Your task to perform on an android device: turn off picture-in-picture Image 0: 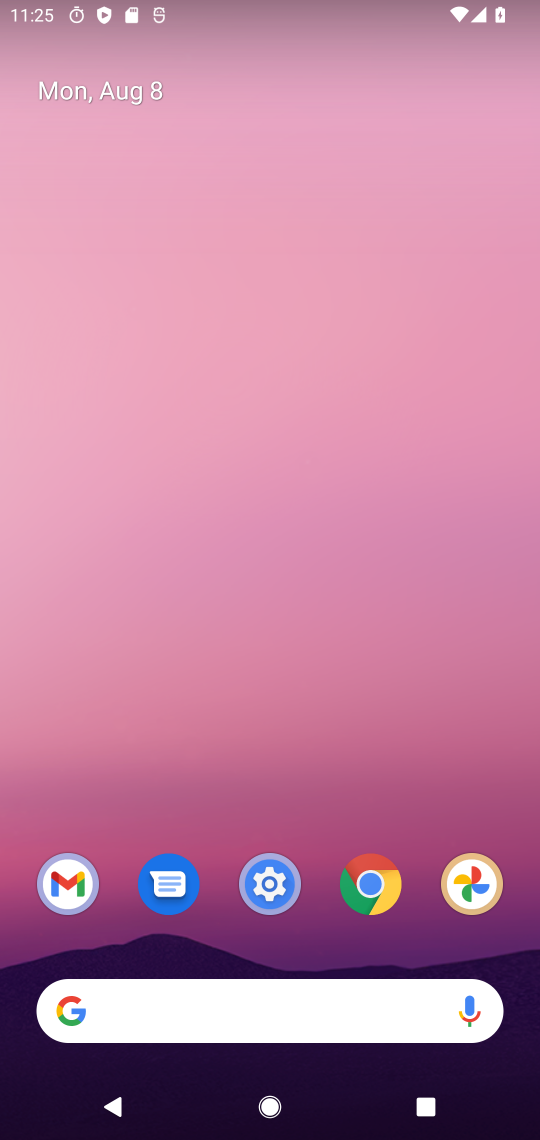
Step 0: click (267, 885)
Your task to perform on an android device: turn off picture-in-picture Image 1: 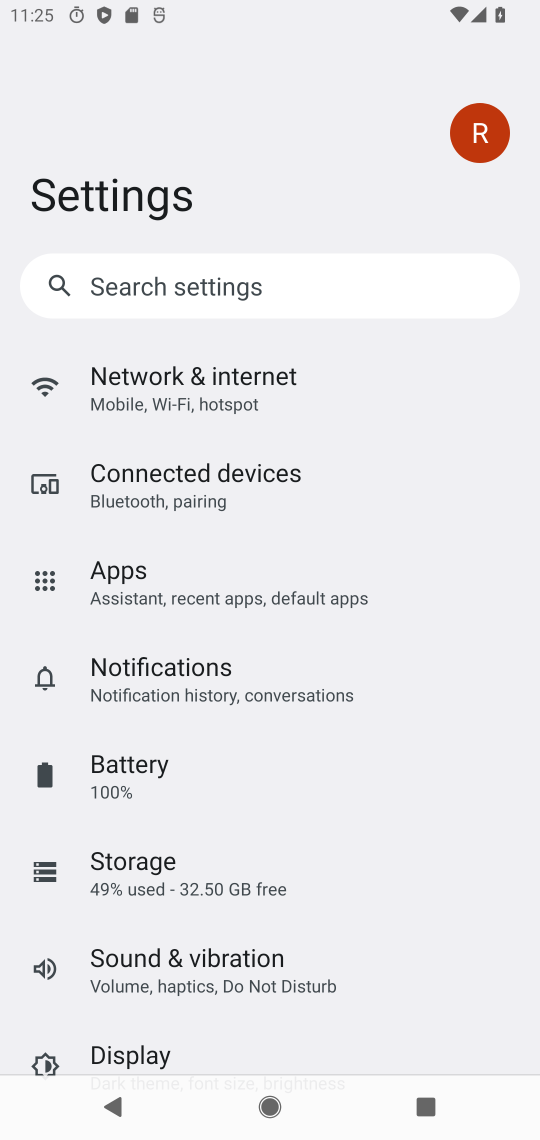
Step 1: click (189, 665)
Your task to perform on an android device: turn off picture-in-picture Image 2: 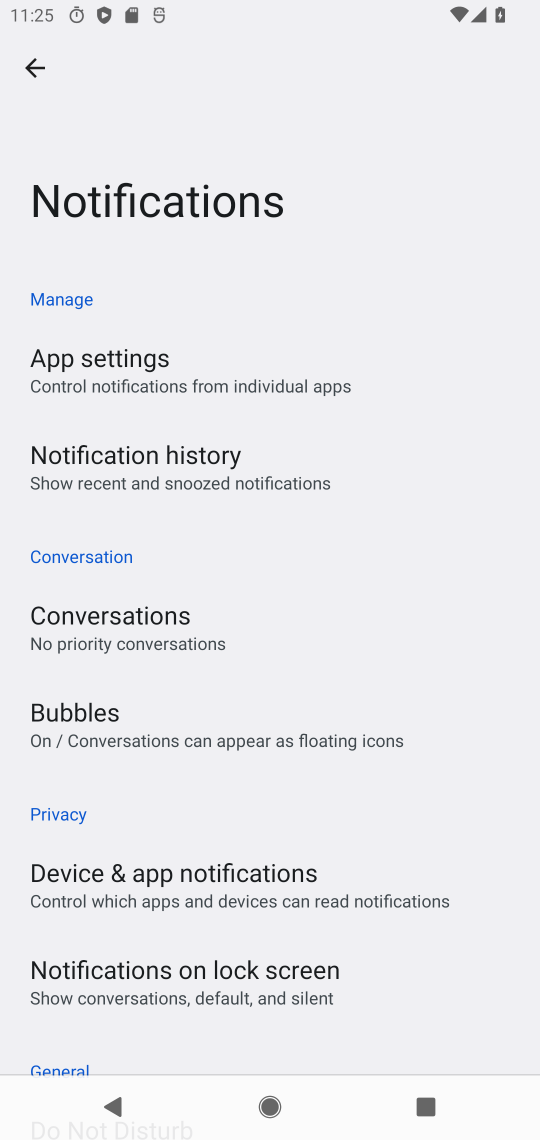
Step 2: drag from (146, 896) to (173, 463)
Your task to perform on an android device: turn off picture-in-picture Image 3: 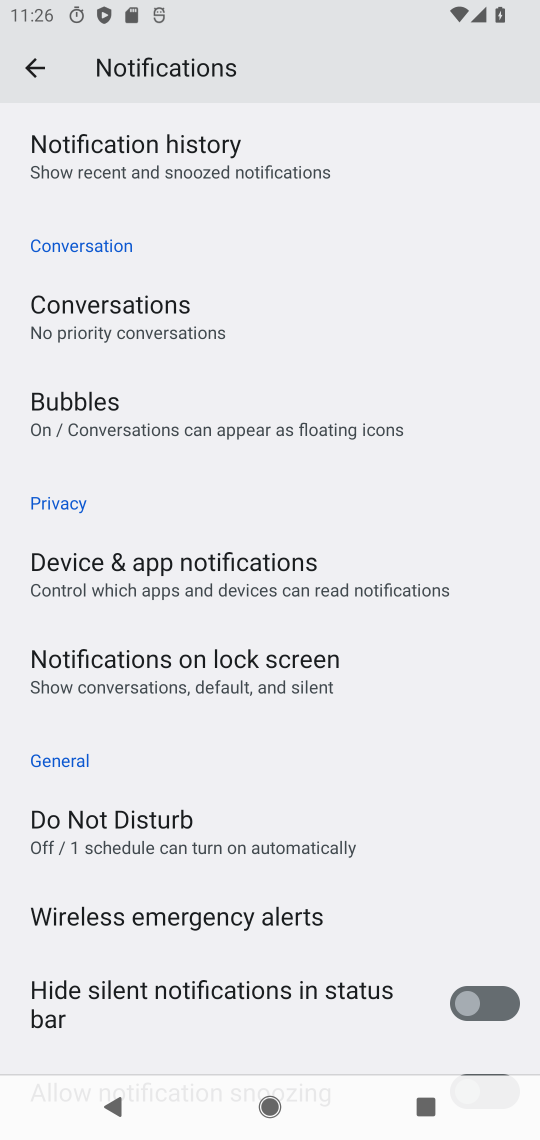
Step 3: drag from (157, 957) to (159, 548)
Your task to perform on an android device: turn off picture-in-picture Image 4: 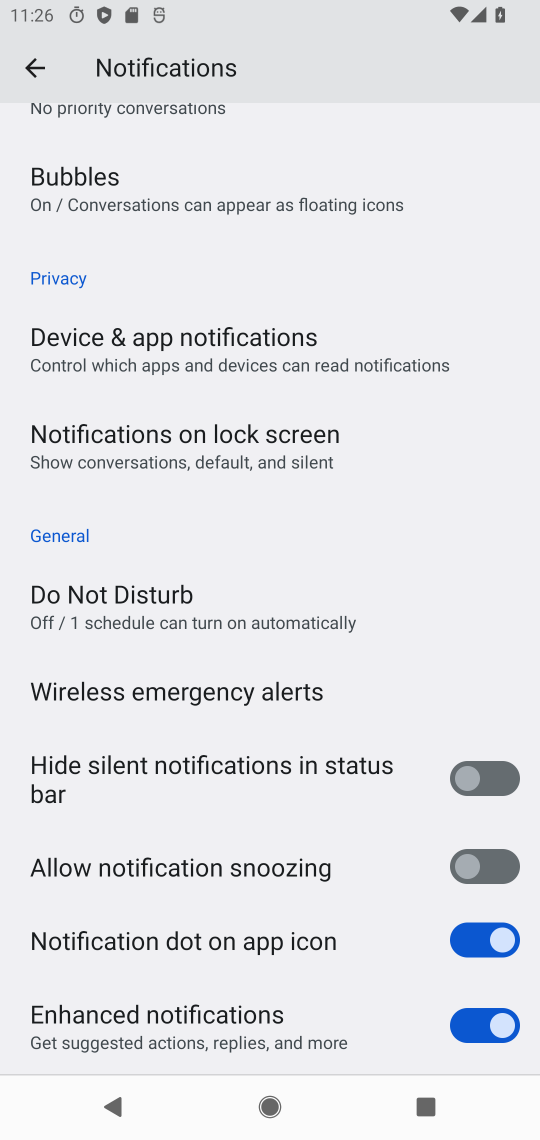
Step 4: drag from (246, 268) to (185, 1138)
Your task to perform on an android device: turn off picture-in-picture Image 5: 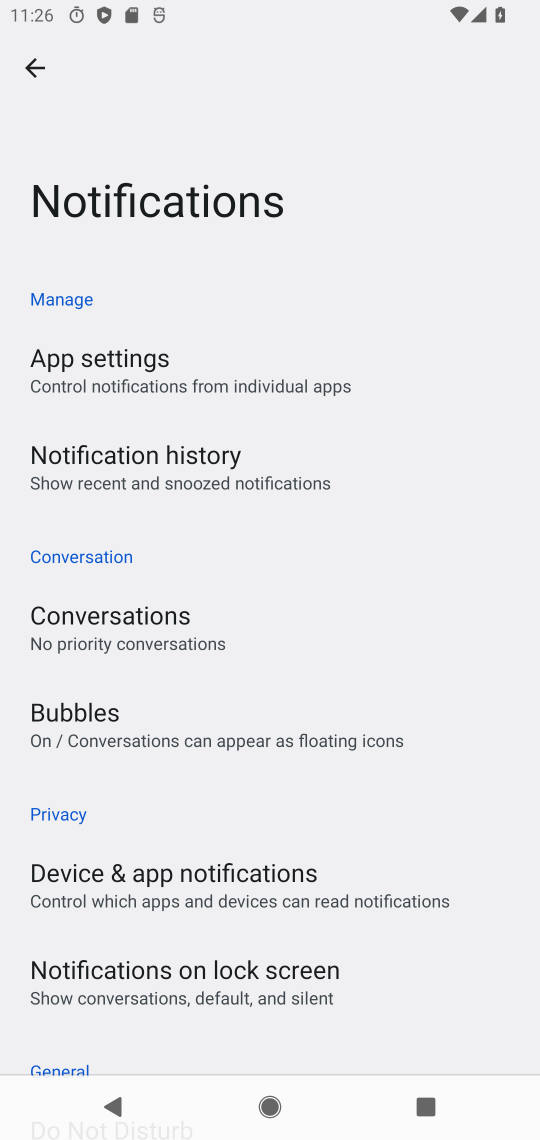
Step 5: click (115, 377)
Your task to perform on an android device: turn off picture-in-picture Image 6: 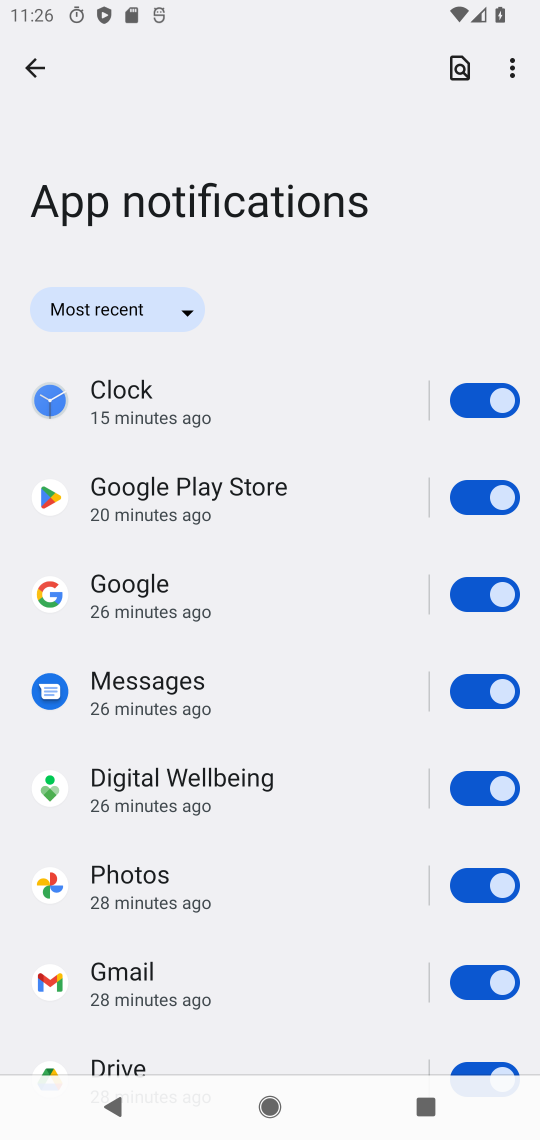
Step 6: drag from (238, 849) to (231, 555)
Your task to perform on an android device: turn off picture-in-picture Image 7: 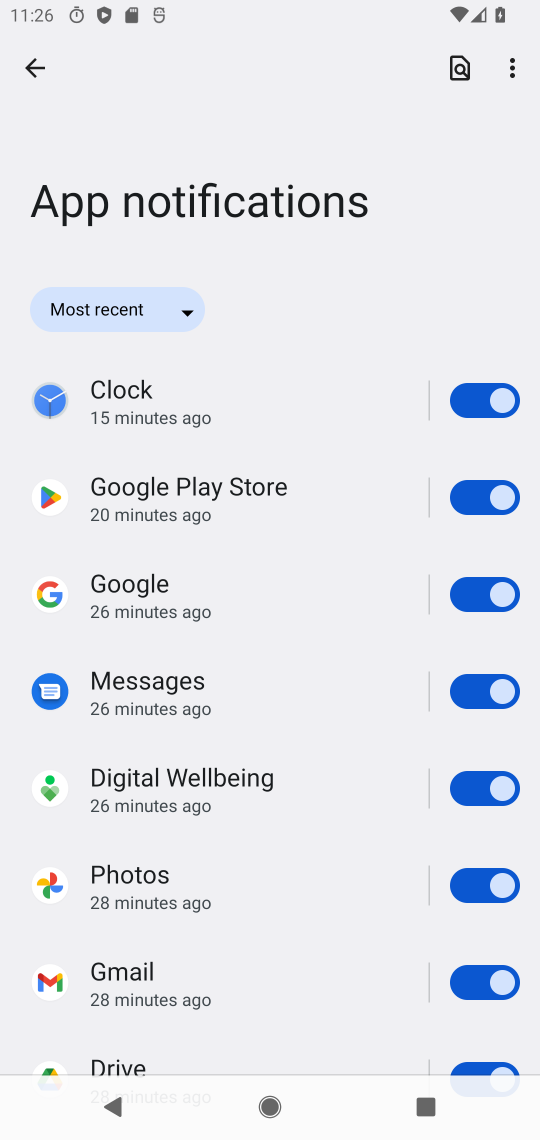
Step 7: click (33, 61)
Your task to perform on an android device: turn off picture-in-picture Image 8: 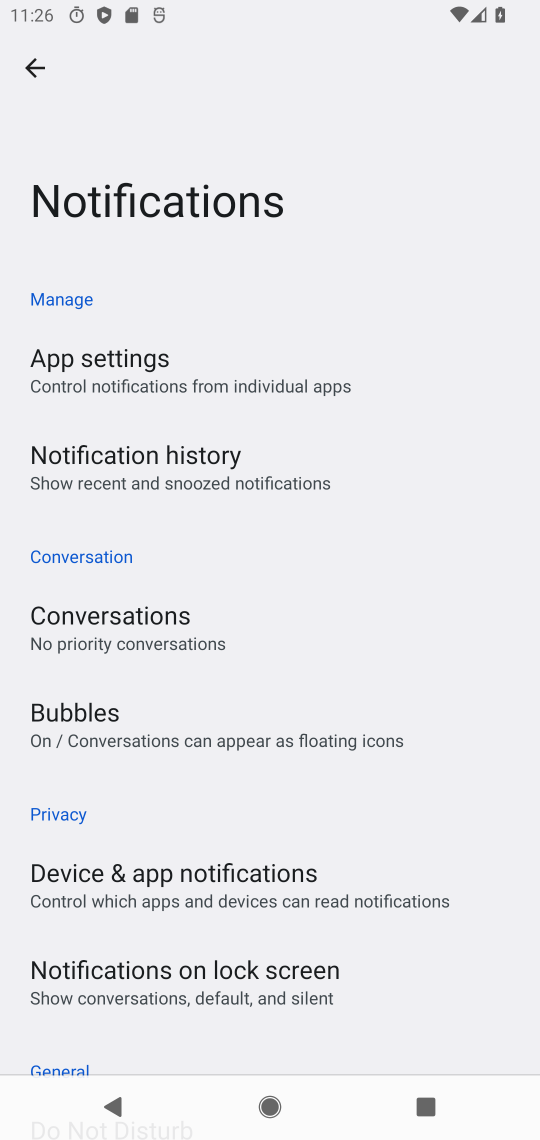
Step 8: click (34, 63)
Your task to perform on an android device: turn off picture-in-picture Image 9: 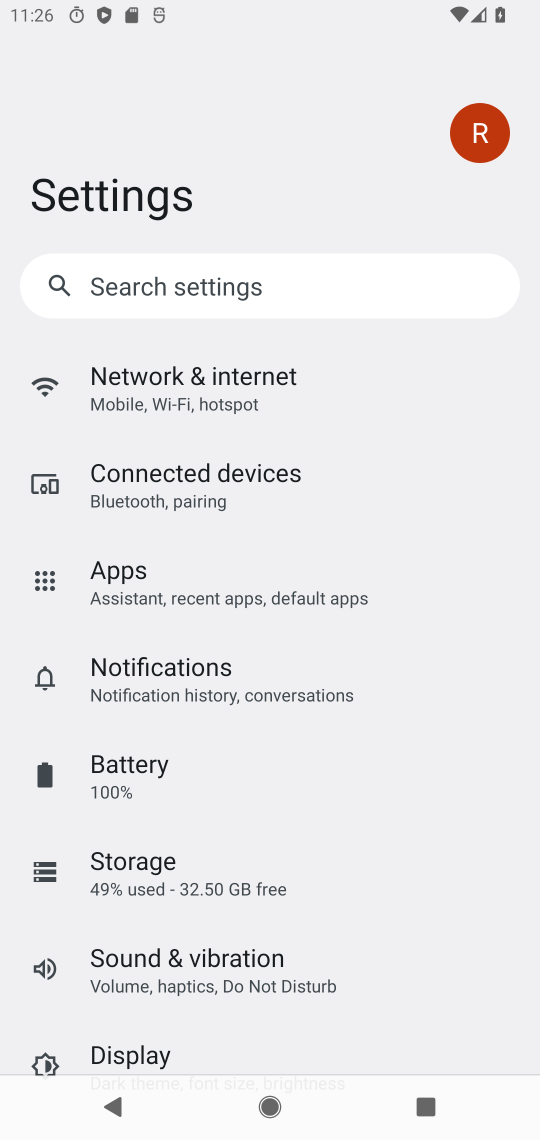
Step 9: click (131, 578)
Your task to perform on an android device: turn off picture-in-picture Image 10: 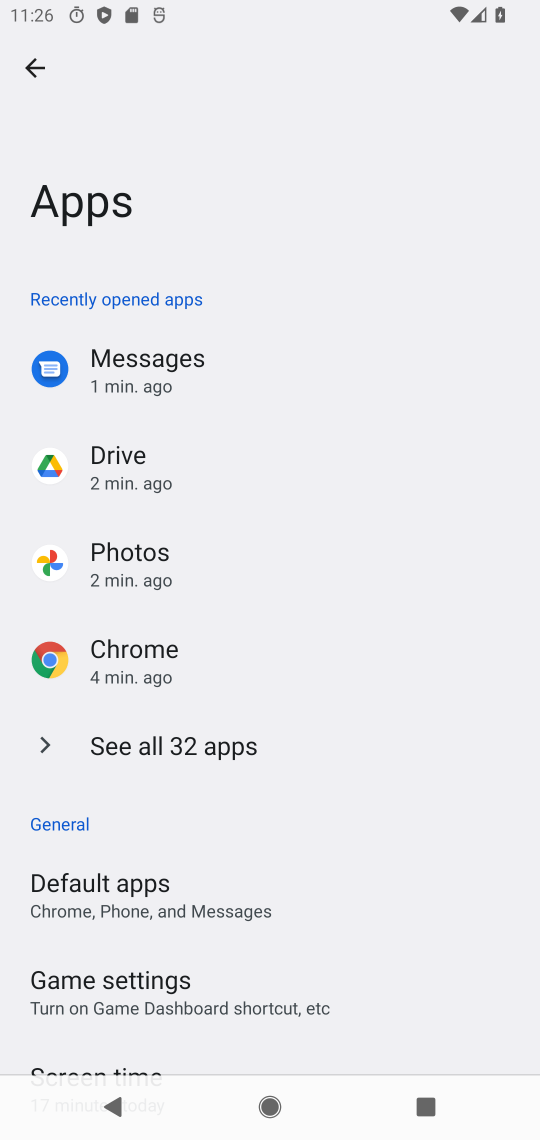
Step 10: drag from (163, 955) to (284, 382)
Your task to perform on an android device: turn off picture-in-picture Image 11: 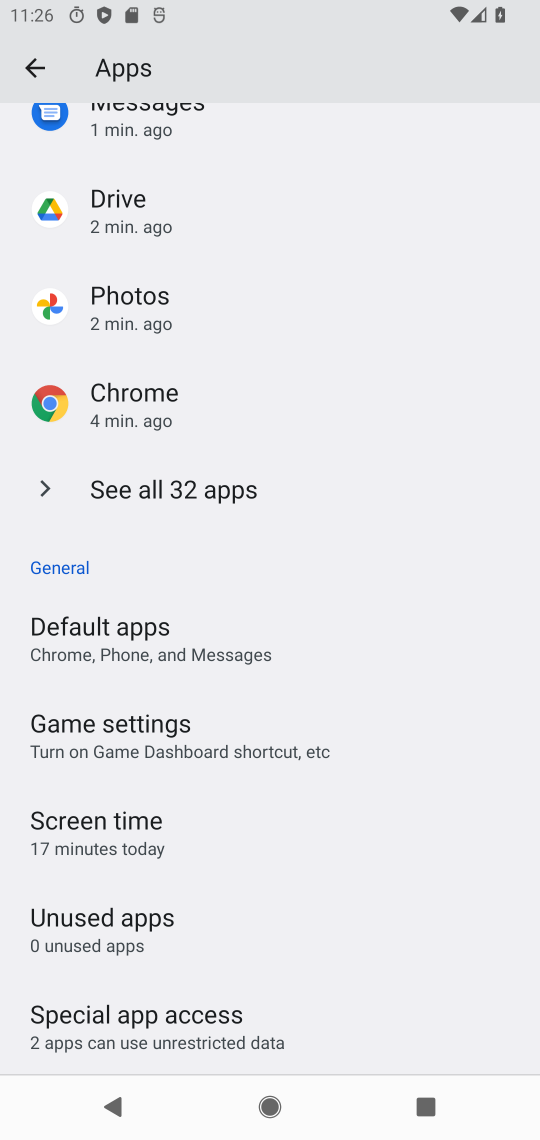
Step 11: drag from (341, 862) to (454, 56)
Your task to perform on an android device: turn off picture-in-picture Image 12: 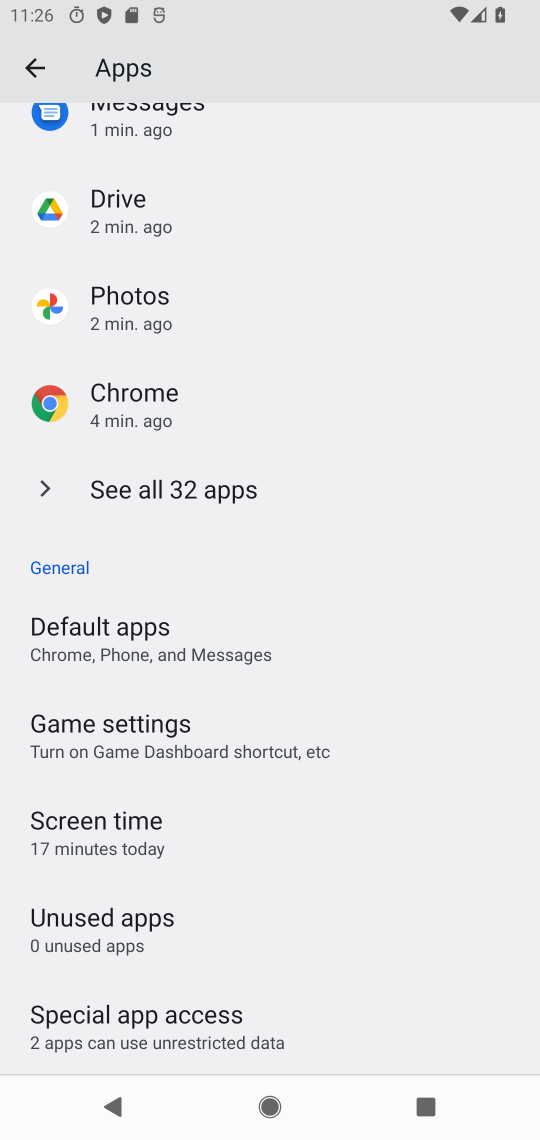
Step 12: click (181, 1039)
Your task to perform on an android device: turn off picture-in-picture Image 13: 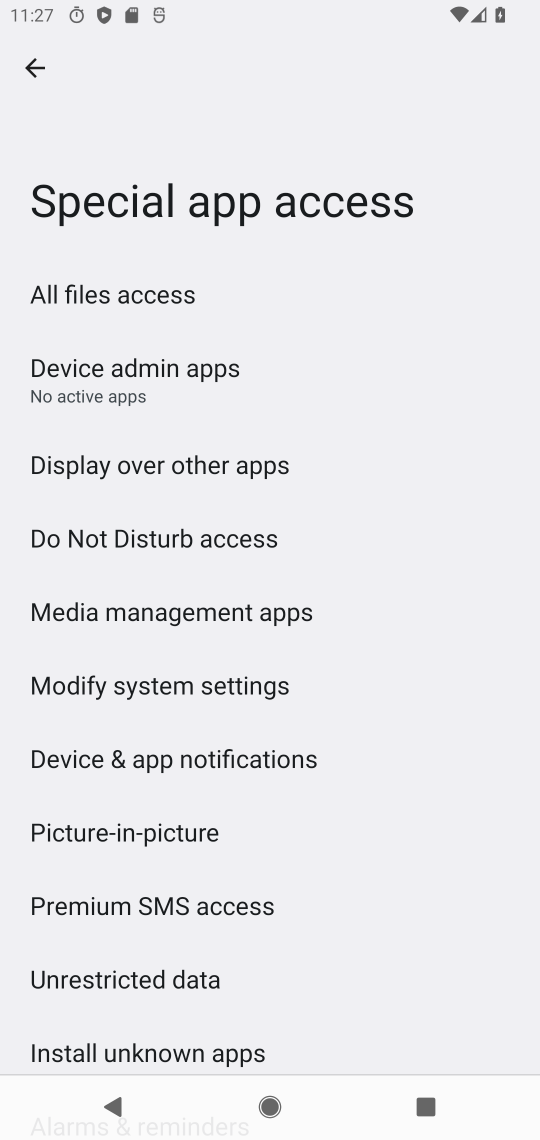
Step 13: click (180, 824)
Your task to perform on an android device: turn off picture-in-picture Image 14: 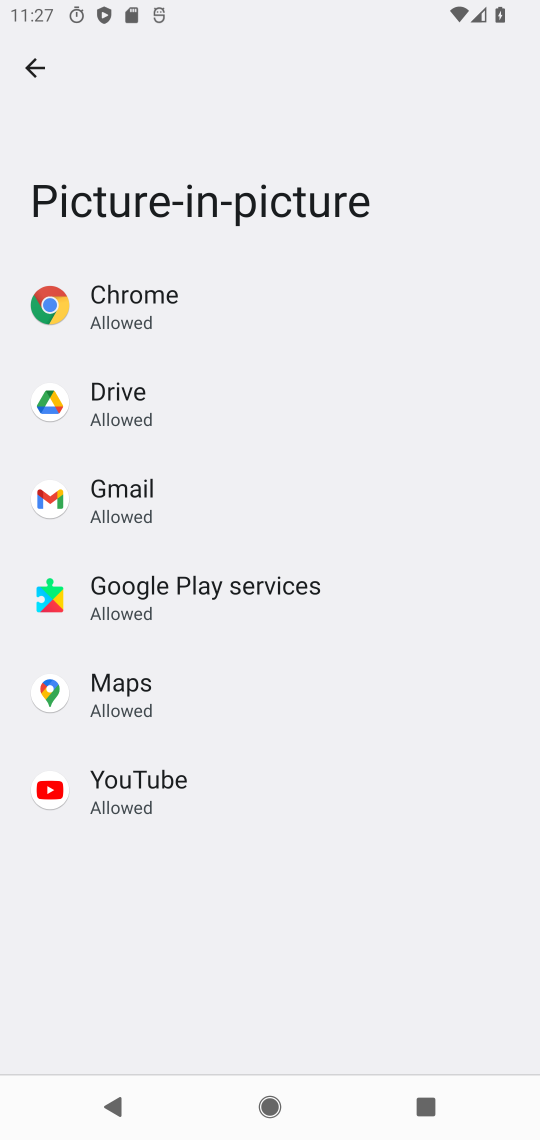
Step 14: click (132, 319)
Your task to perform on an android device: turn off picture-in-picture Image 15: 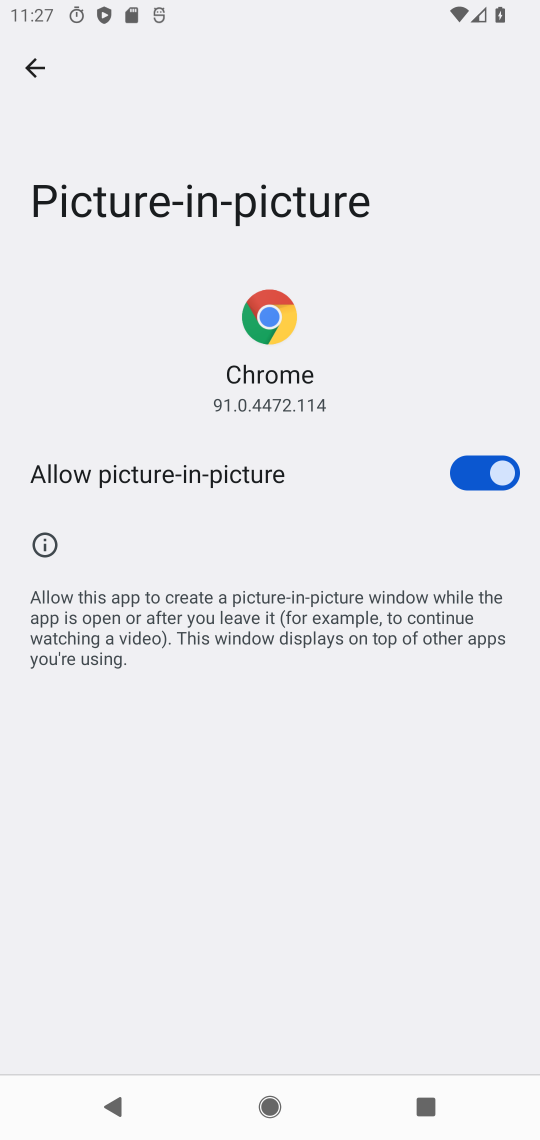
Step 15: click (478, 475)
Your task to perform on an android device: turn off picture-in-picture Image 16: 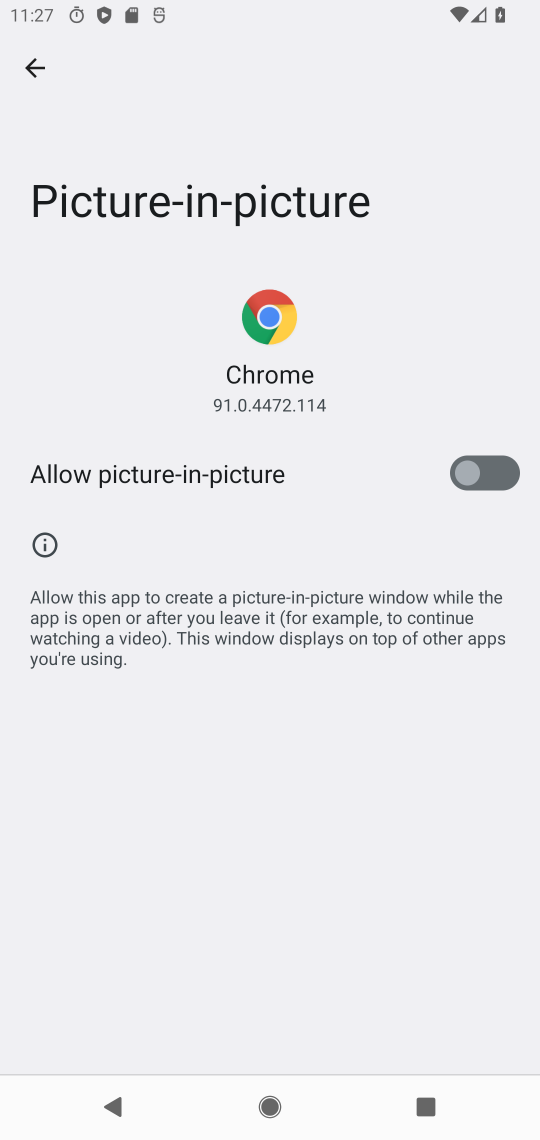
Step 16: task complete